Your task to perform on an android device: Go to Android settings Image 0: 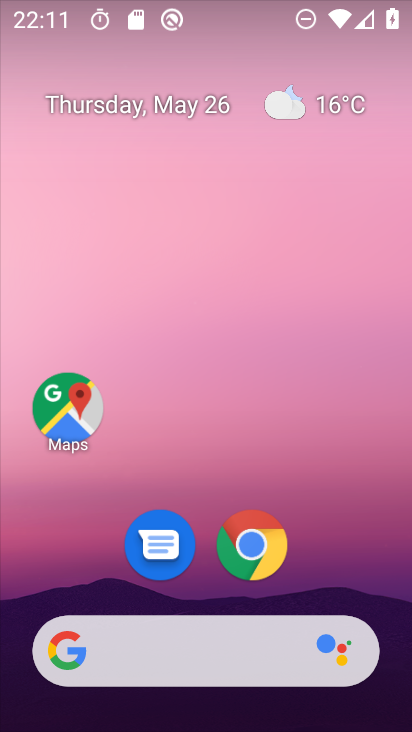
Step 0: drag from (319, 550) to (312, 192)
Your task to perform on an android device: Go to Android settings Image 1: 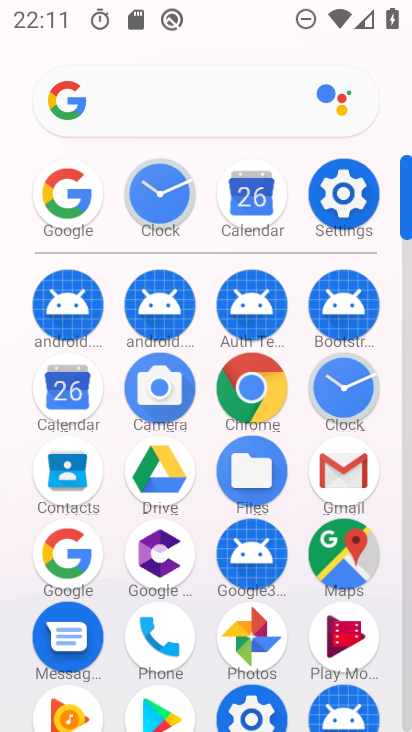
Step 1: click (346, 192)
Your task to perform on an android device: Go to Android settings Image 2: 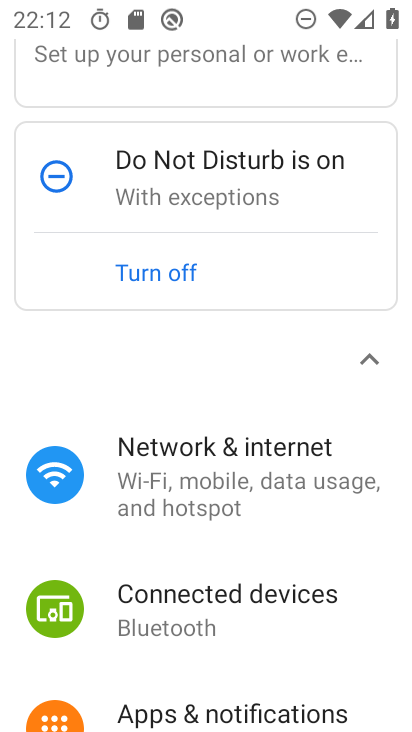
Step 2: task complete